Your task to perform on an android device: turn off smart reply in the gmail app Image 0: 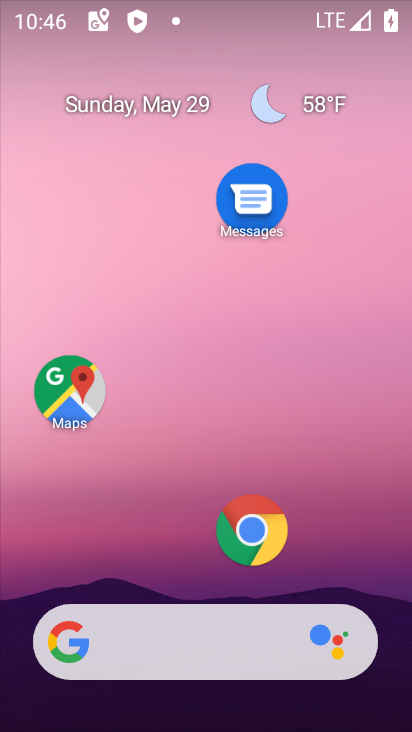
Step 0: drag from (130, 574) to (190, 166)
Your task to perform on an android device: turn off smart reply in the gmail app Image 1: 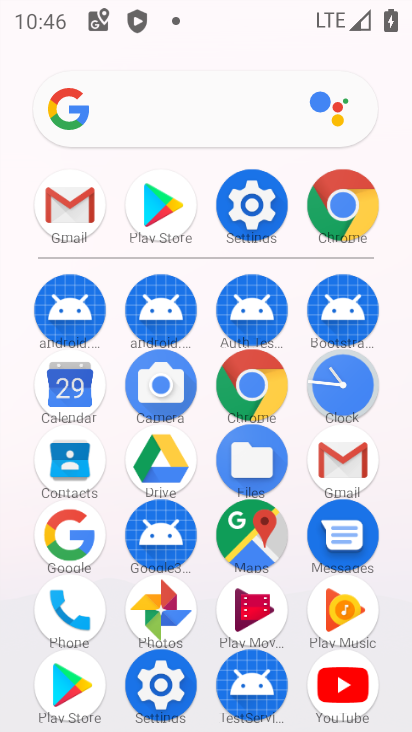
Step 1: click (348, 469)
Your task to perform on an android device: turn off smart reply in the gmail app Image 2: 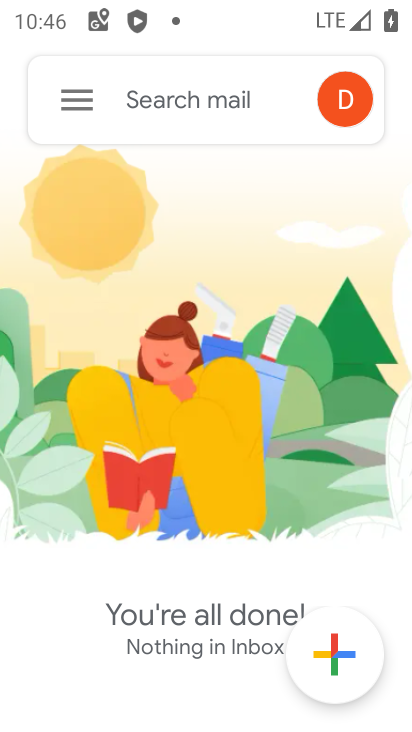
Step 2: click (71, 101)
Your task to perform on an android device: turn off smart reply in the gmail app Image 3: 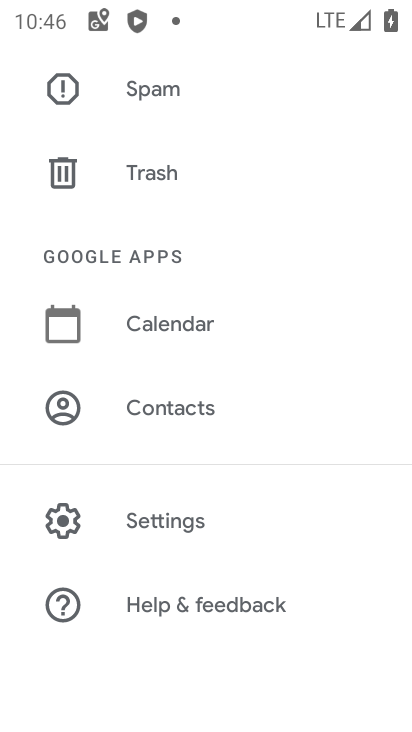
Step 3: click (190, 528)
Your task to perform on an android device: turn off smart reply in the gmail app Image 4: 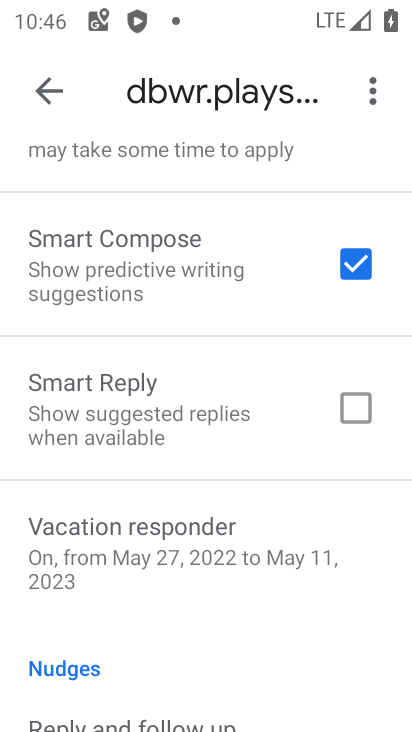
Step 4: task complete